Your task to perform on an android device: choose inbox layout in the gmail app Image 0: 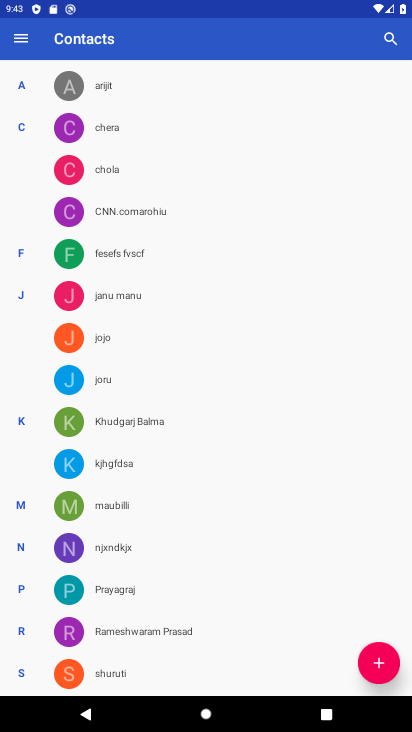
Step 0: press home button
Your task to perform on an android device: choose inbox layout in the gmail app Image 1: 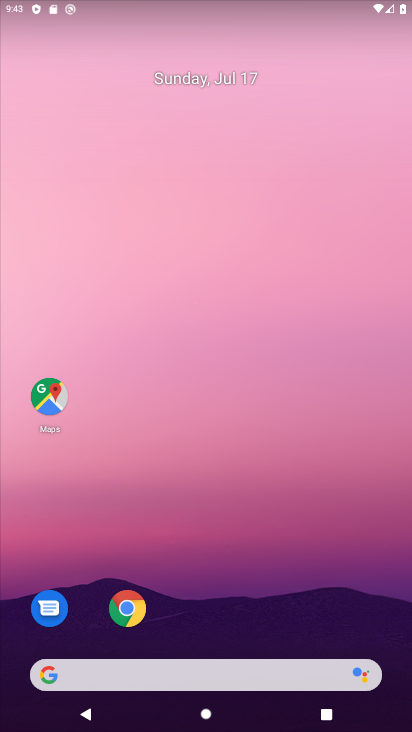
Step 1: drag from (386, 615) to (338, 104)
Your task to perform on an android device: choose inbox layout in the gmail app Image 2: 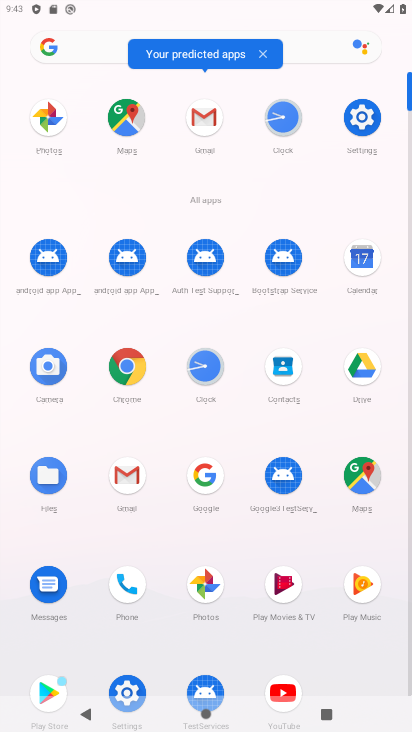
Step 2: click (127, 477)
Your task to perform on an android device: choose inbox layout in the gmail app Image 3: 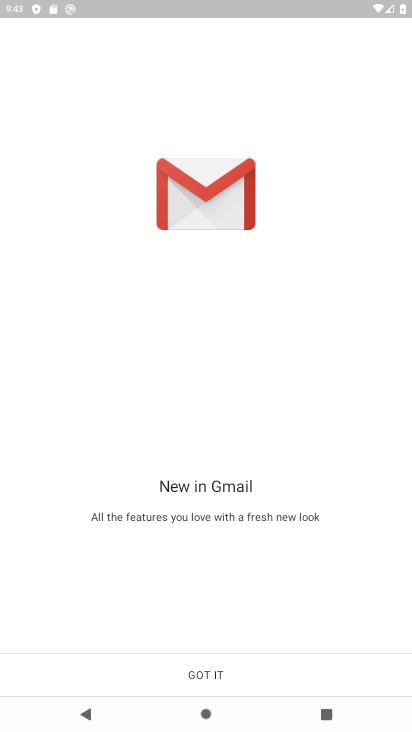
Step 3: click (202, 670)
Your task to perform on an android device: choose inbox layout in the gmail app Image 4: 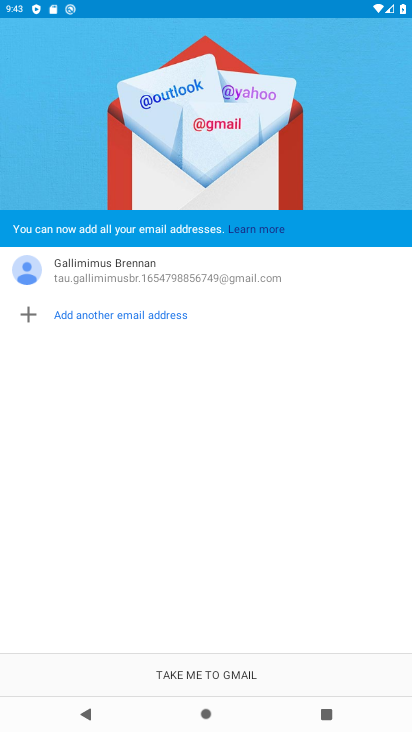
Step 4: click (202, 670)
Your task to perform on an android device: choose inbox layout in the gmail app Image 5: 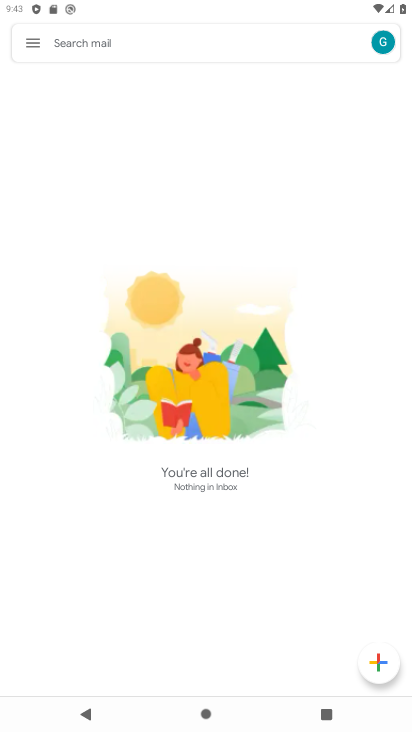
Step 5: click (27, 40)
Your task to perform on an android device: choose inbox layout in the gmail app Image 6: 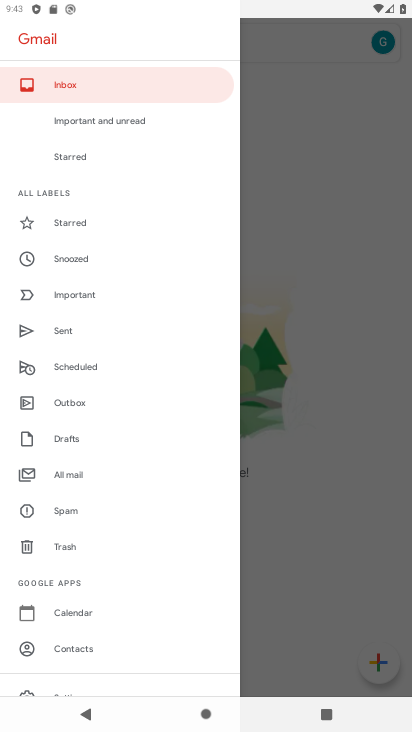
Step 6: drag from (123, 619) to (124, 334)
Your task to perform on an android device: choose inbox layout in the gmail app Image 7: 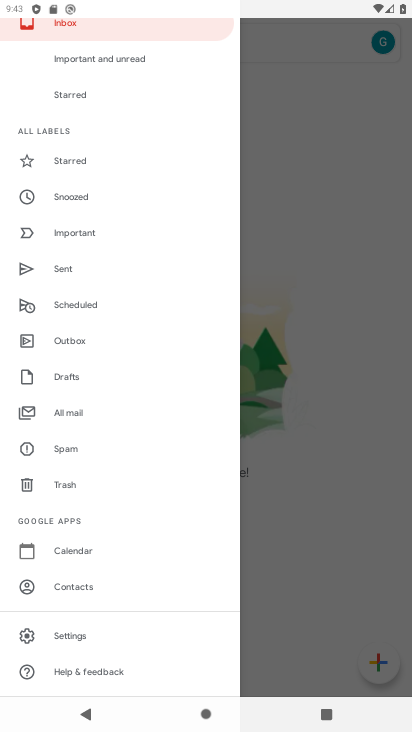
Step 7: click (59, 630)
Your task to perform on an android device: choose inbox layout in the gmail app Image 8: 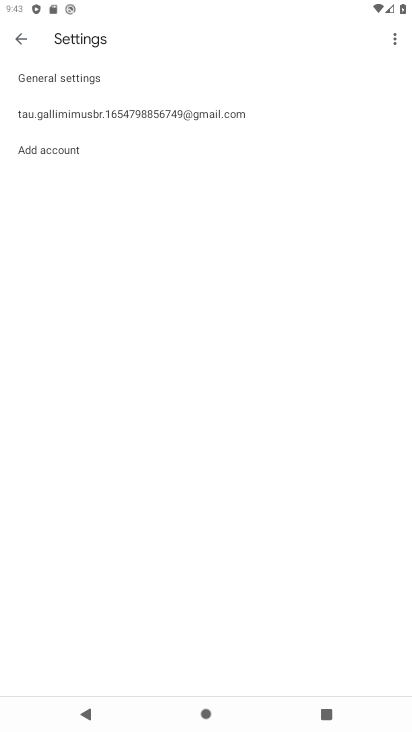
Step 8: click (85, 114)
Your task to perform on an android device: choose inbox layout in the gmail app Image 9: 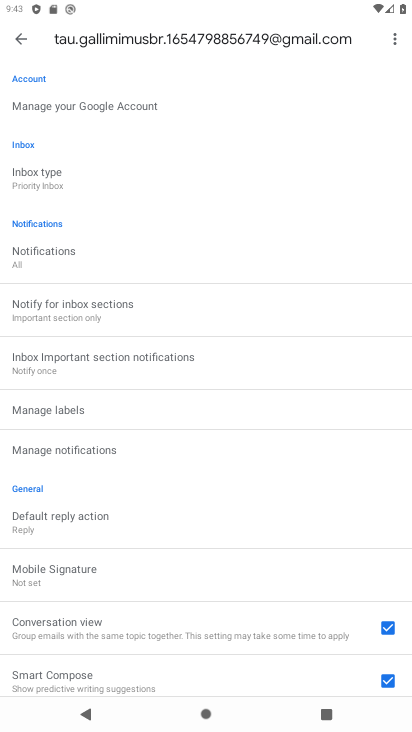
Step 9: click (32, 178)
Your task to perform on an android device: choose inbox layout in the gmail app Image 10: 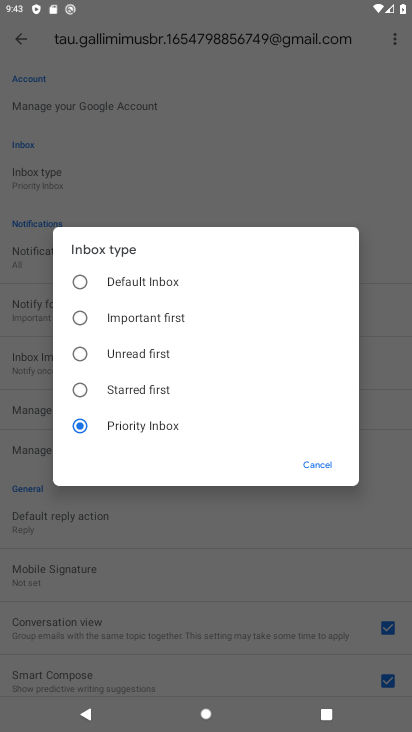
Step 10: click (78, 278)
Your task to perform on an android device: choose inbox layout in the gmail app Image 11: 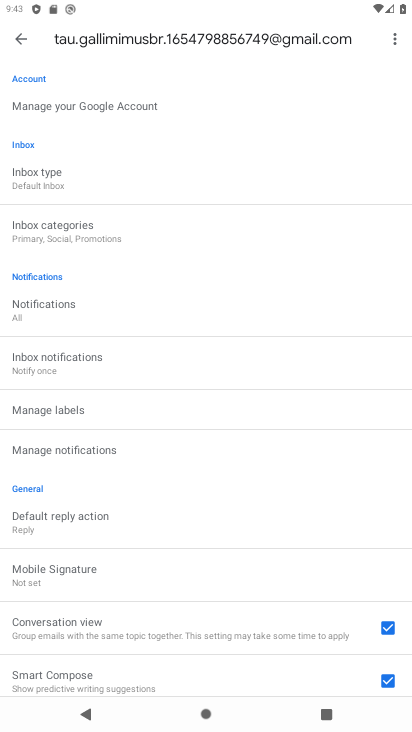
Step 11: task complete